Your task to perform on an android device: Open the calendar app, open the side menu, and click the "Day" option Image 0: 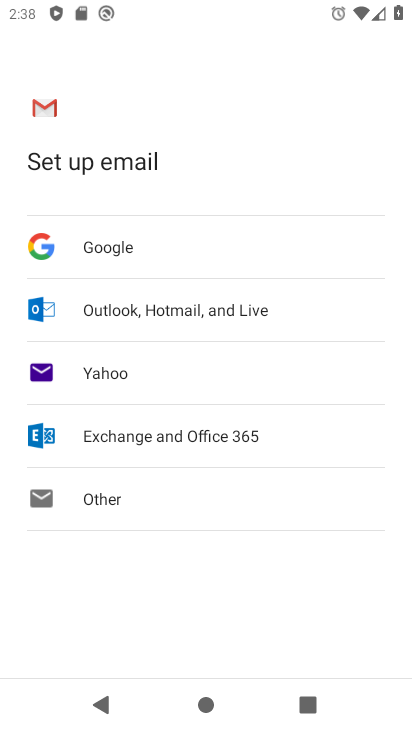
Step 0: press home button
Your task to perform on an android device: Open the calendar app, open the side menu, and click the "Day" option Image 1: 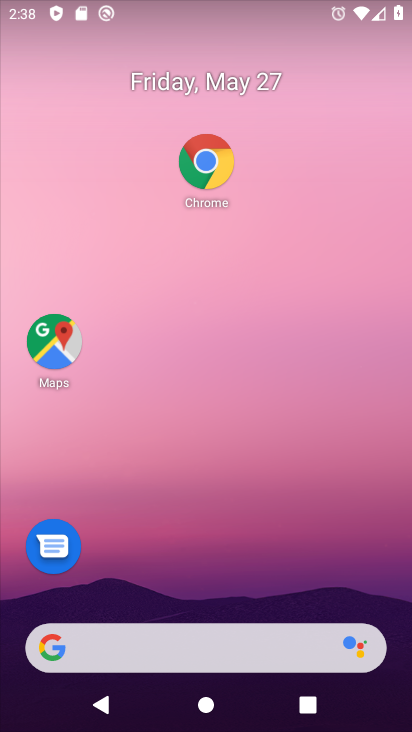
Step 1: drag from (181, 542) to (229, 69)
Your task to perform on an android device: Open the calendar app, open the side menu, and click the "Day" option Image 2: 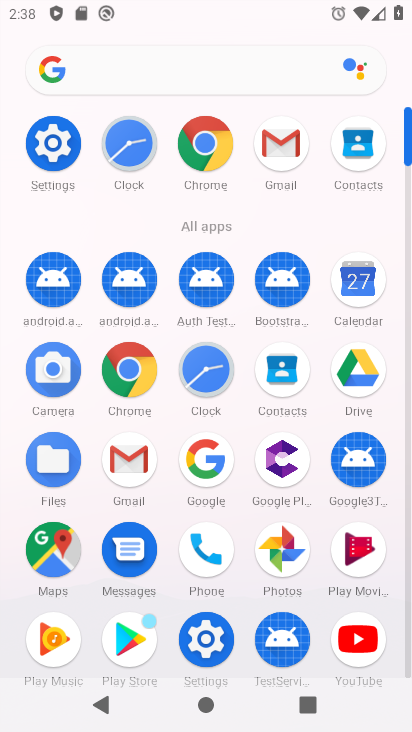
Step 2: click (353, 293)
Your task to perform on an android device: Open the calendar app, open the side menu, and click the "Day" option Image 3: 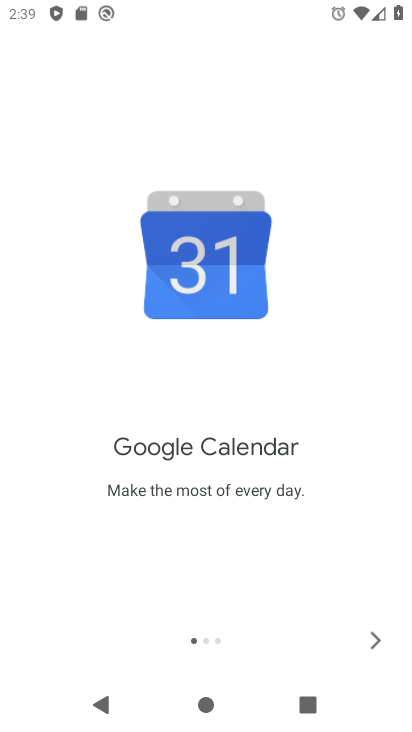
Step 3: click (362, 648)
Your task to perform on an android device: Open the calendar app, open the side menu, and click the "Day" option Image 4: 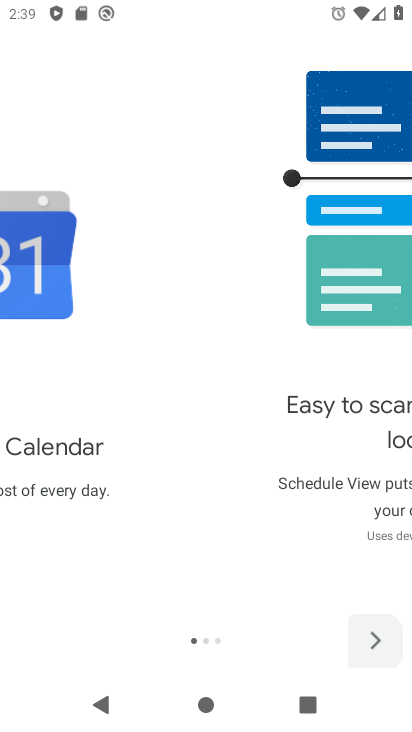
Step 4: click (365, 648)
Your task to perform on an android device: Open the calendar app, open the side menu, and click the "Day" option Image 5: 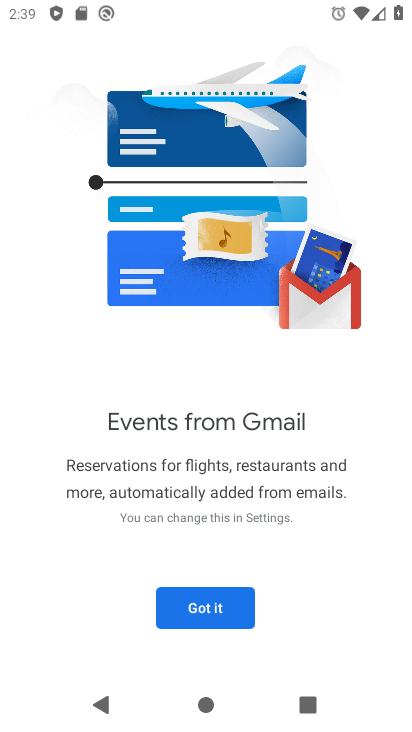
Step 5: click (206, 603)
Your task to perform on an android device: Open the calendar app, open the side menu, and click the "Day" option Image 6: 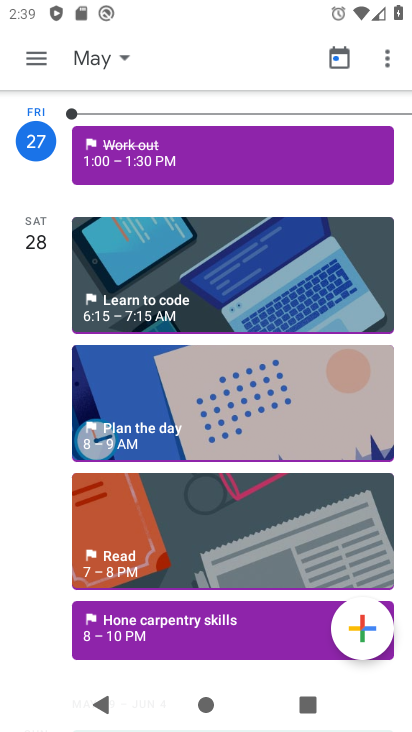
Step 6: click (44, 63)
Your task to perform on an android device: Open the calendar app, open the side menu, and click the "Day" option Image 7: 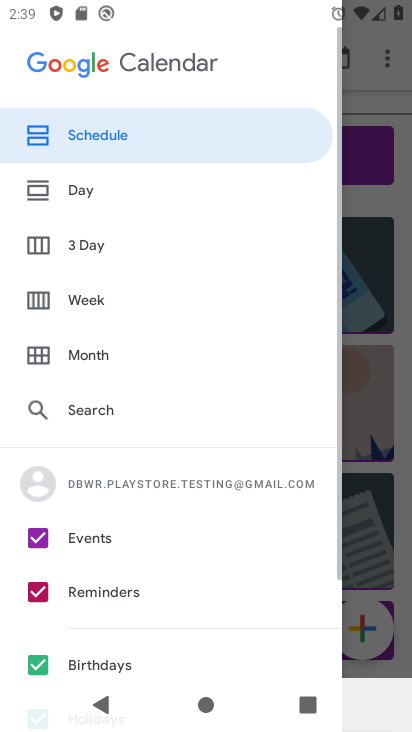
Step 7: click (115, 204)
Your task to perform on an android device: Open the calendar app, open the side menu, and click the "Day" option Image 8: 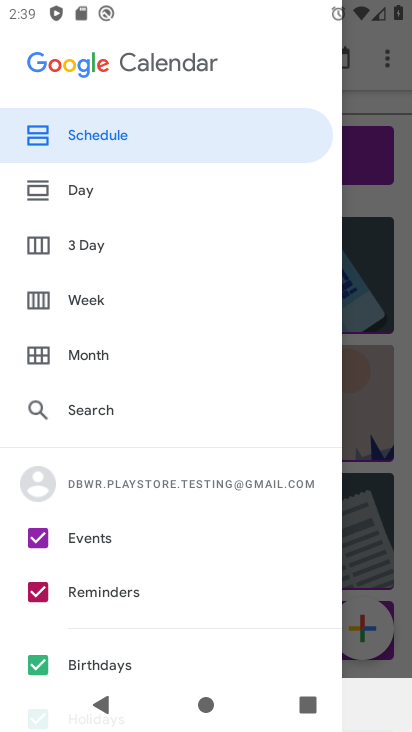
Step 8: click (79, 174)
Your task to perform on an android device: Open the calendar app, open the side menu, and click the "Day" option Image 9: 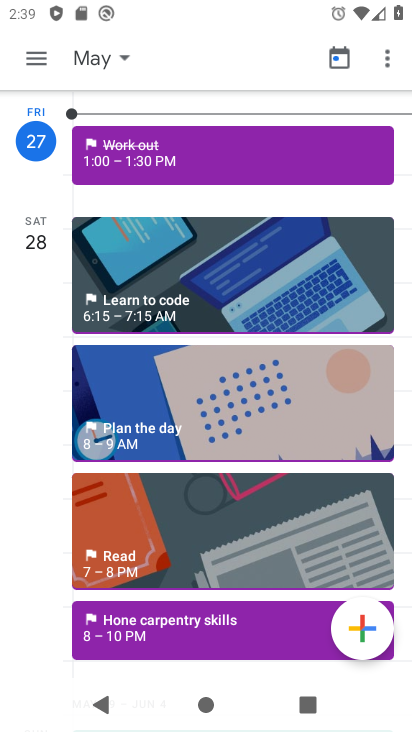
Step 9: click (84, 190)
Your task to perform on an android device: Open the calendar app, open the side menu, and click the "Day" option Image 10: 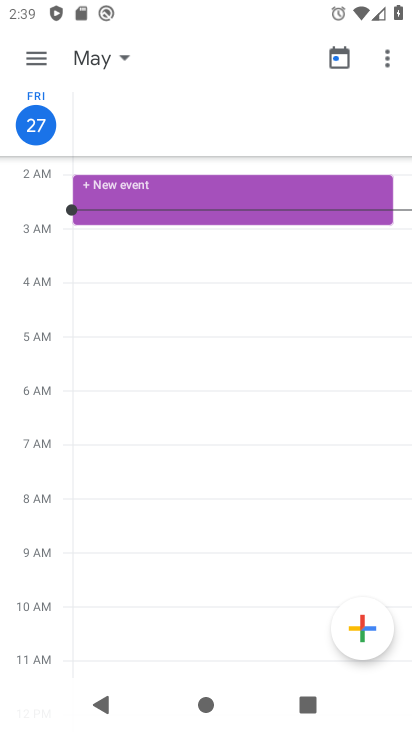
Step 10: task complete